Your task to perform on an android device: Open my contact list Image 0: 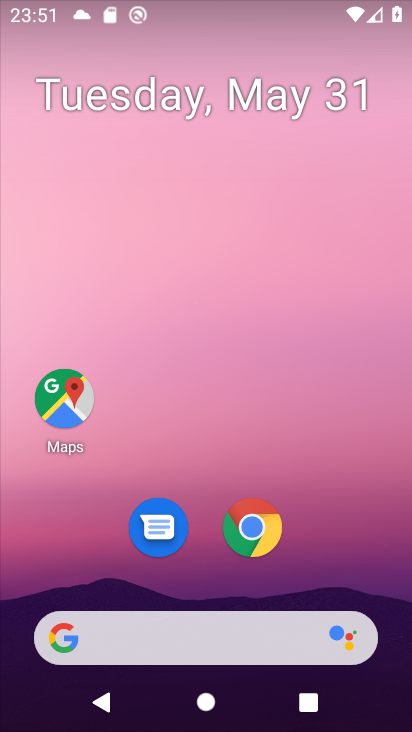
Step 0: drag from (368, 529) to (225, 1)
Your task to perform on an android device: Open my contact list Image 1: 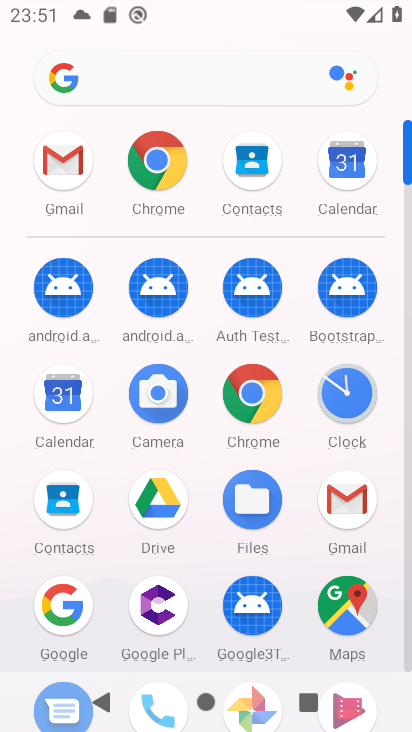
Step 1: click (50, 520)
Your task to perform on an android device: Open my contact list Image 2: 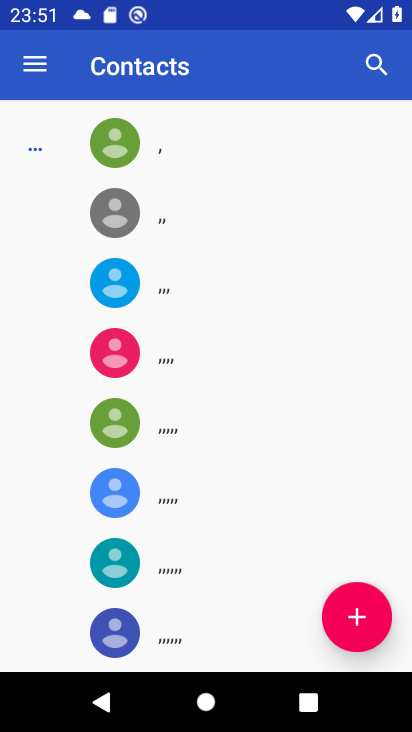
Step 2: task complete